Your task to perform on an android device: Play the last video I watched on Youtube Image 0: 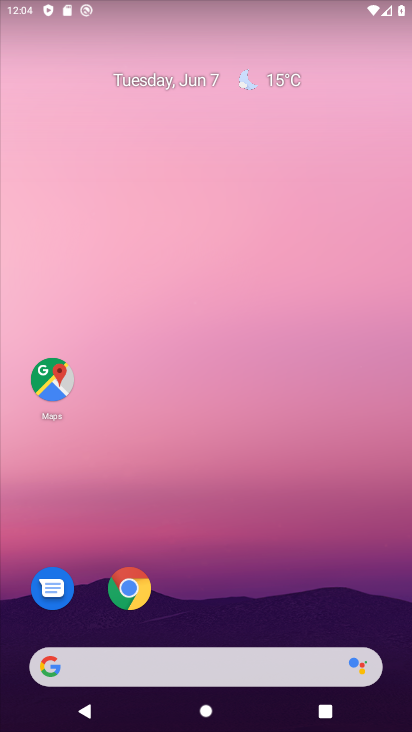
Step 0: drag from (226, 634) to (209, 268)
Your task to perform on an android device: Play the last video I watched on Youtube Image 1: 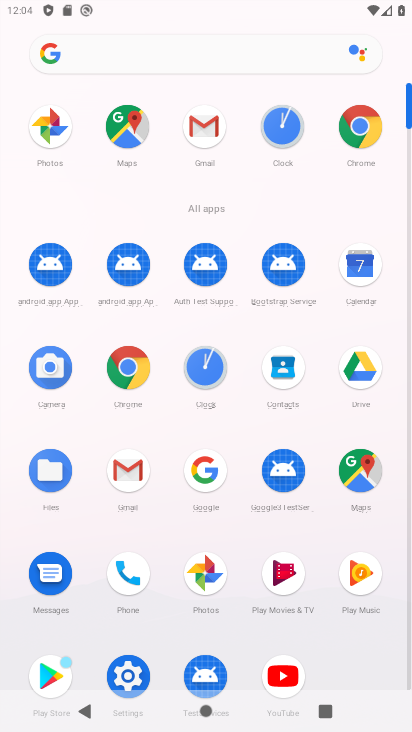
Step 1: click (286, 665)
Your task to perform on an android device: Play the last video I watched on Youtube Image 2: 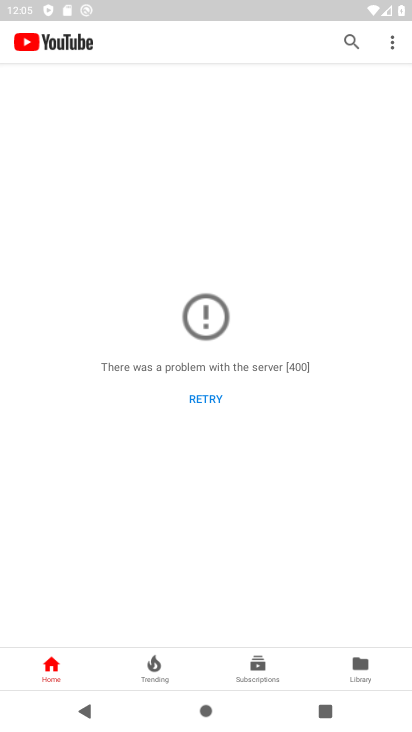
Step 2: click (345, 39)
Your task to perform on an android device: Play the last video I watched on Youtube Image 3: 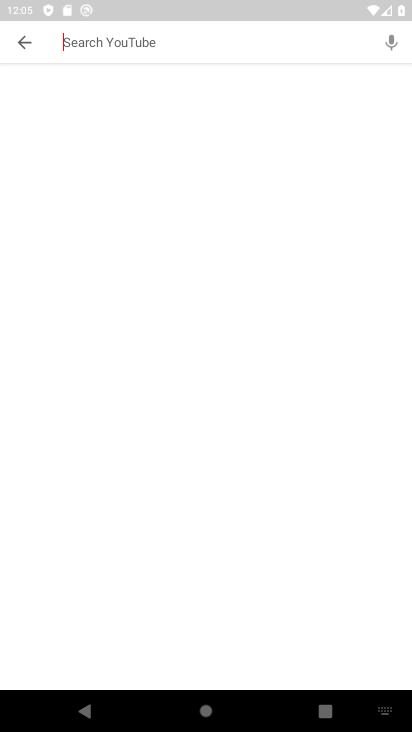
Step 3: click (190, 42)
Your task to perform on an android device: Play the last video I watched on Youtube Image 4: 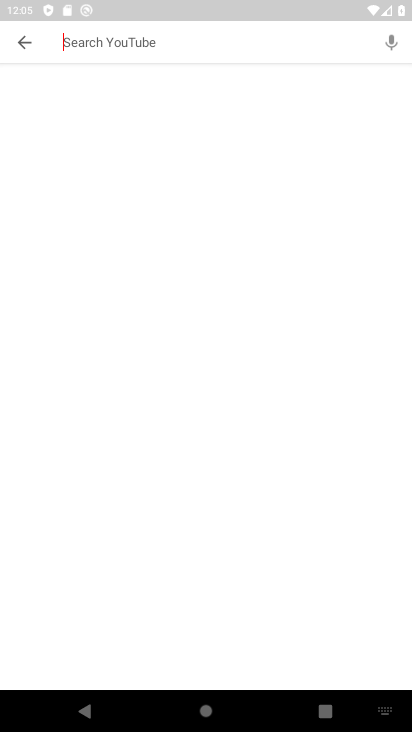
Step 4: type "india"
Your task to perform on an android device: Play the last video I watched on Youtube Image 5: 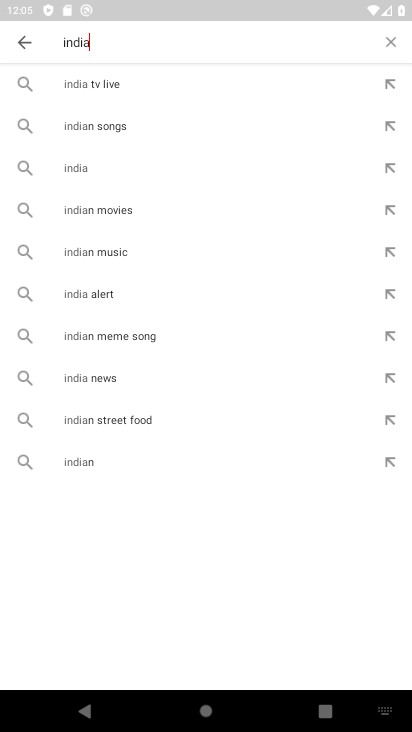
Step 5: click (122, 82)
Your task to perform on an android device: Play the last video I watched on Youtube Image 6: 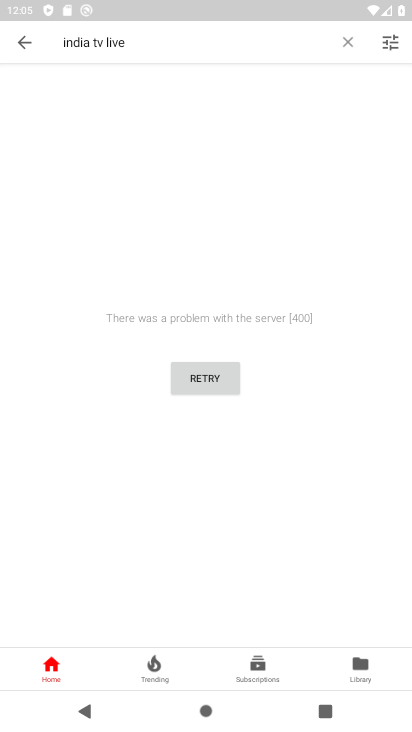
Step 6: task complete